Your task to perform on an android device: toggle location history Image 0: 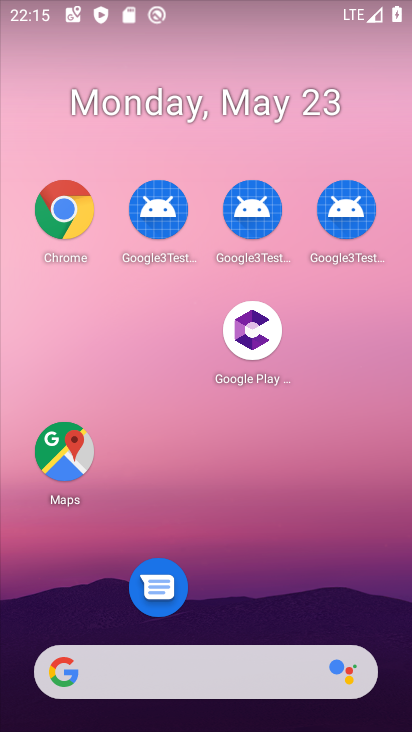
Step 0: drag from (262, 535) to (271, 79)
Your task to perform on an android device: toggle location history Image 1: 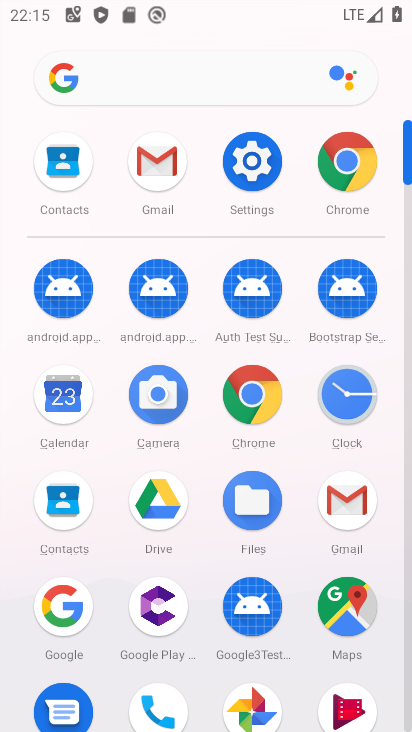
Step 1: click (345, 513)
Your task to perform on an android device: toggle location history Image 2: 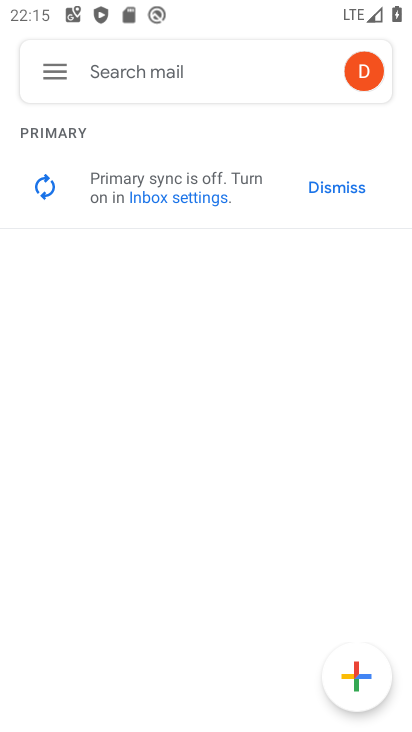
Step 2: press home button
Your task to perform on an android device: toggle location history Image 3: 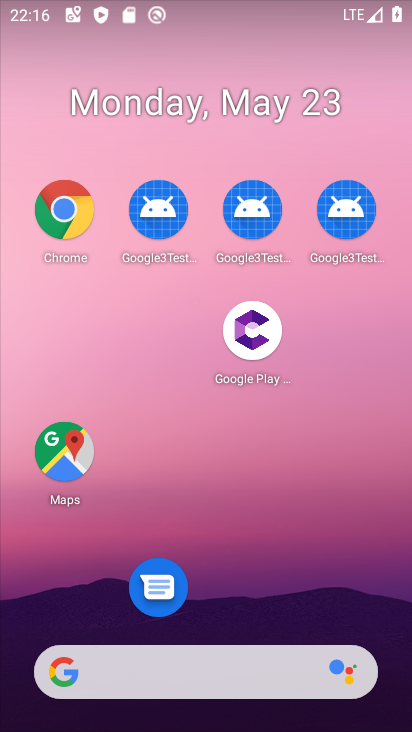
Step 3: drag from (290, 466) to (301, 27)
Your task to perform on an android device: toggle location history Image 4: 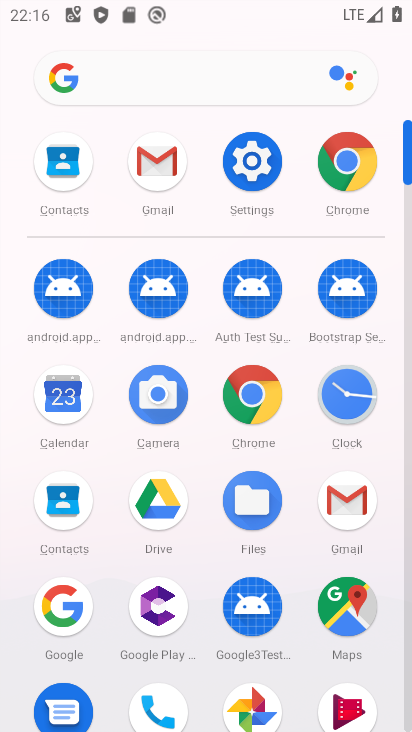
Step 4: click (262, 162)
Your task to perform on an android device: toggle location history Image 5: 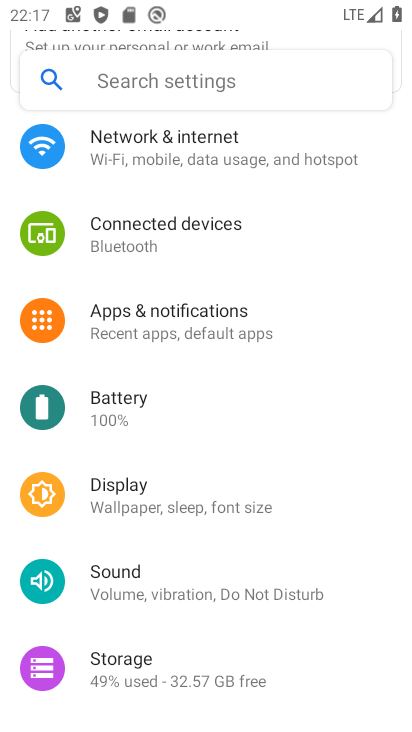
Step 5: drag from (227, 284) to (262, 705)
Your task to perform on an android device: toggle location history Image 6: 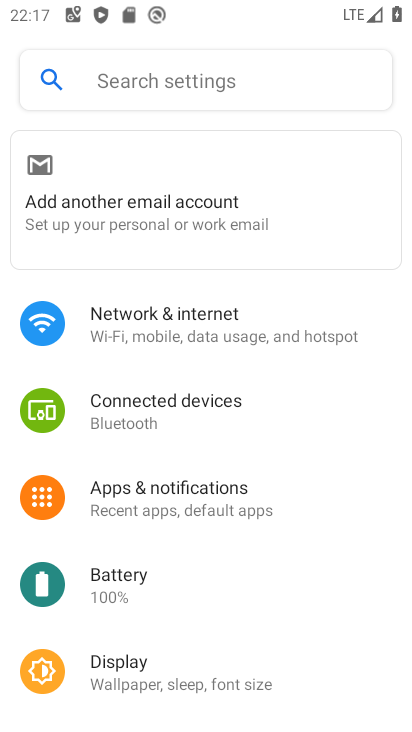
Step 6: drag from (243, 641) to (251, 226)
Your task to perform on an android device: toggle location history Image 7: 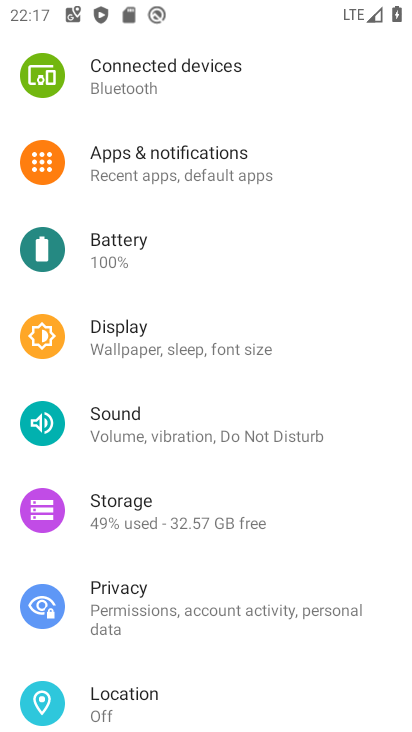
Step 7: drag from (224, 669) to (208, 288)
Your task to perform on an android device: toggle location history Image 8: 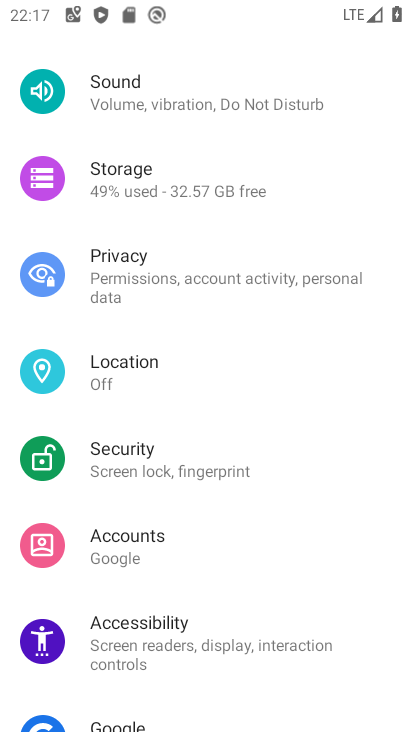
Step 8: click (158, 364)
Your task to perform on an android device: toggle location history Image 9: 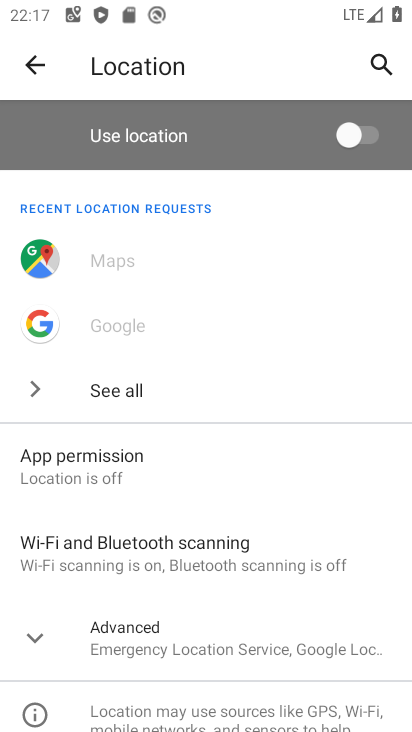
Step 9: drag from (240, 541) to (282, 122)
Your task to perform on an android device: toggle location history Image 10: 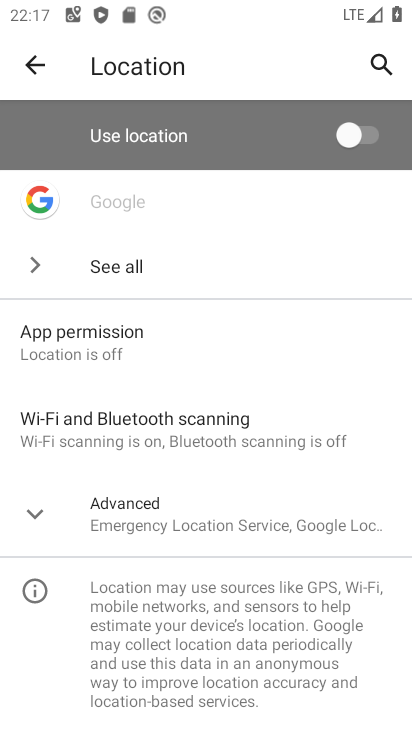
Step 10: click (219, 521)
Your task to perform on an android device: toggle location history Image 11: 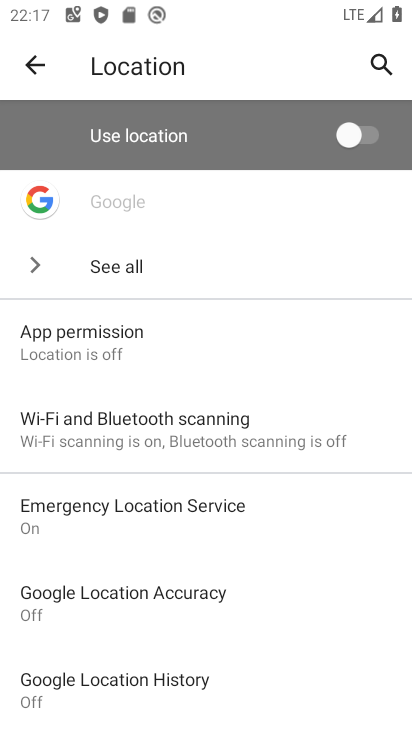
Step 11: click (221, 676)
Your task to perform on an android device: toggle location history Image 12: 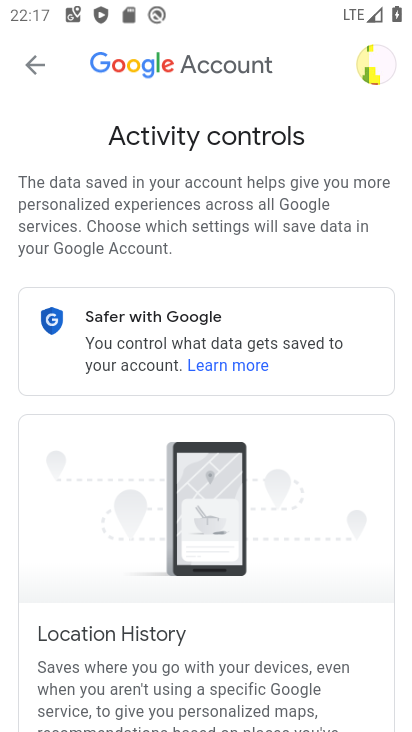
Step 12: drag from (272, 670) to (267, 251)
Your task to perform on an android device: toggle location history Image 13: 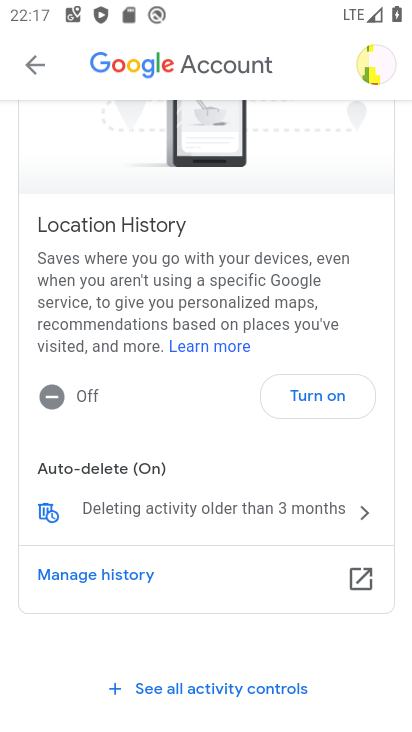
Step 13: click (91, 397)
Your task to perform on an android device: toggle location history Image 14: 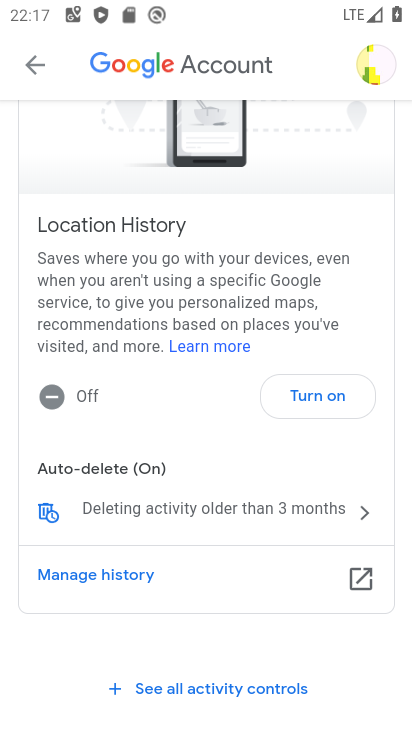
Step 14: click (91, 397)
Your task to perform on an android device: toggle location history Image 15: 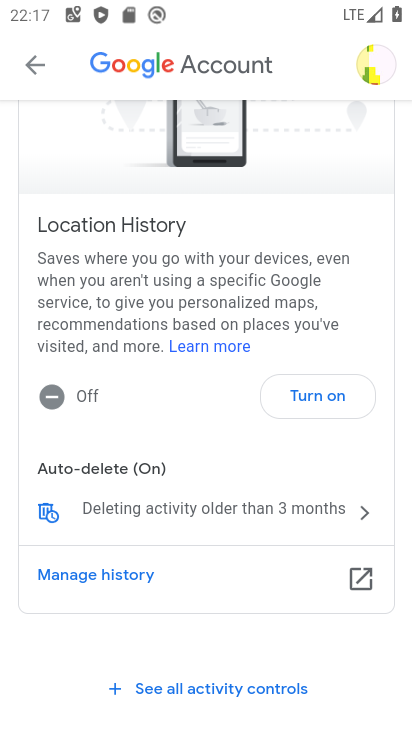
Step 15: click (317, 383)
Your task to perform on an android device: toggle location history Image 16: 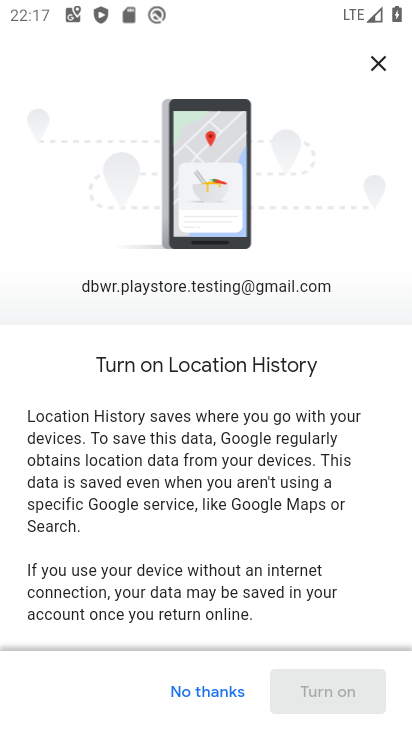
Step 16: task complete